Your task to perform on an android device: check data usage Image 0: 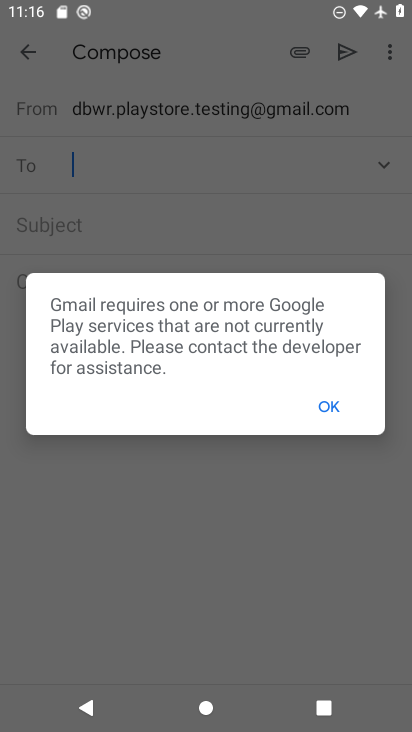
Step 0: press home button
Your task to perform on an android device: check data usage Image 1: 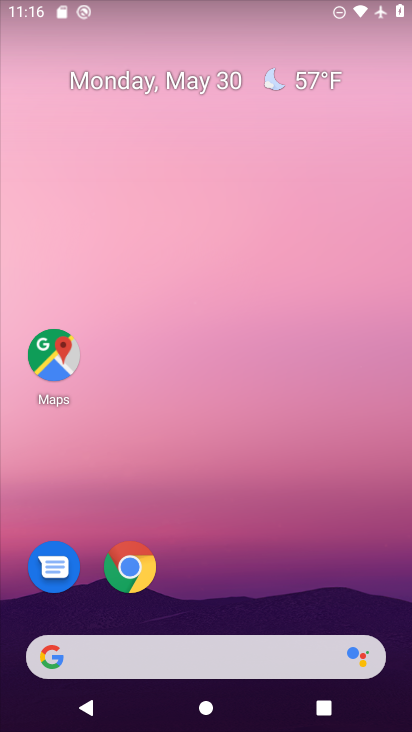
Step 1: drag from (212, 599) to (216, 170)
Your task to perform on an android device: check data usage Image 2: 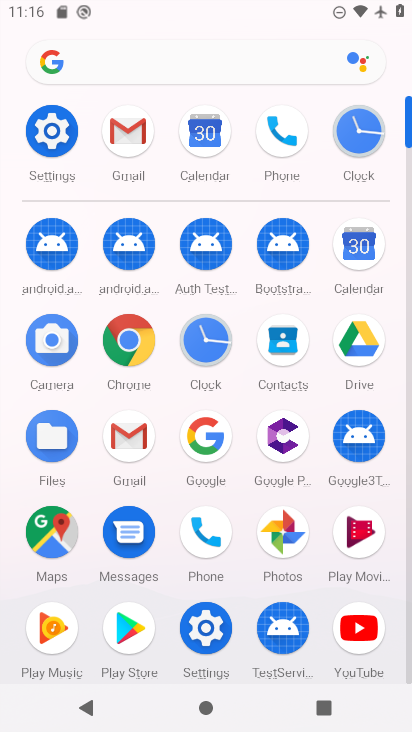
Step 2: click (54, 106)
Your task to perform on an android device: check data usage Image 3: 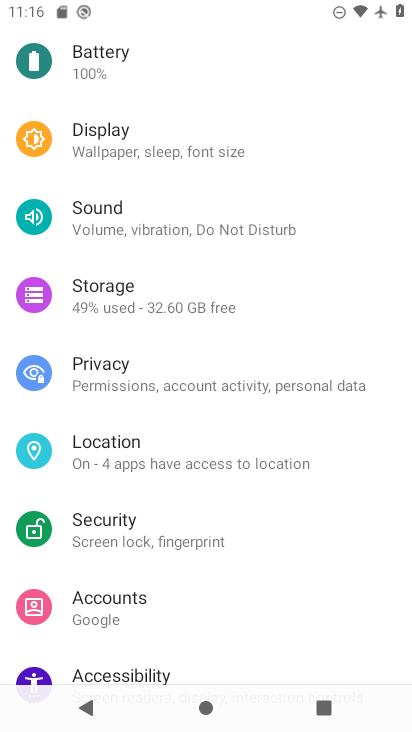
Step 3: drag from (143, 158) to (146, 505)
Your task to perform on an android device: check data usage Image 4: 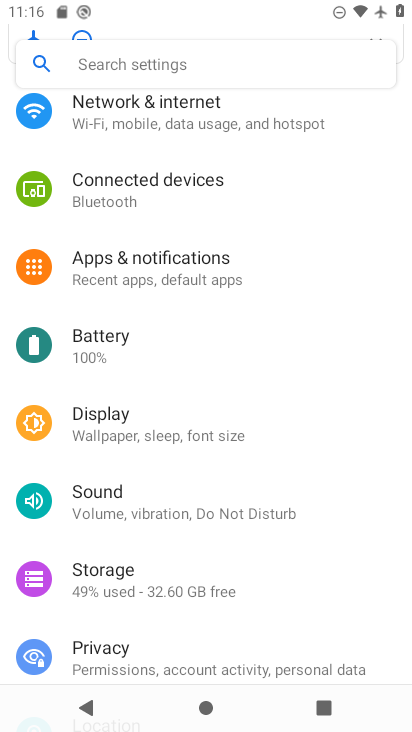
Step 4: click (189, 102)
Your task to perform on an android device: check data usage Image 5: 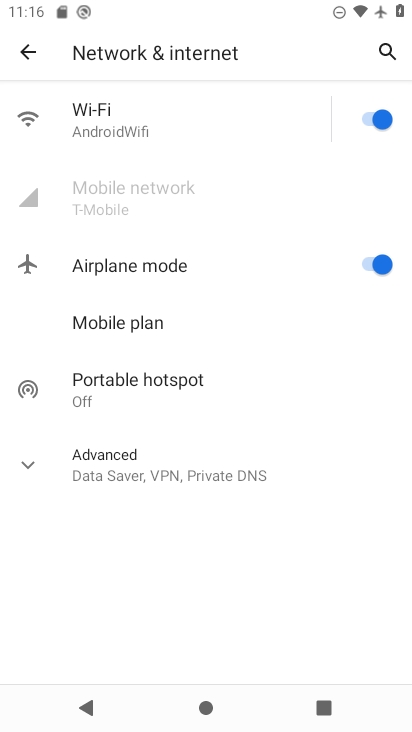
Step 5: click (124, 173)
Your task to perform on an android device: check data usage Image 6: 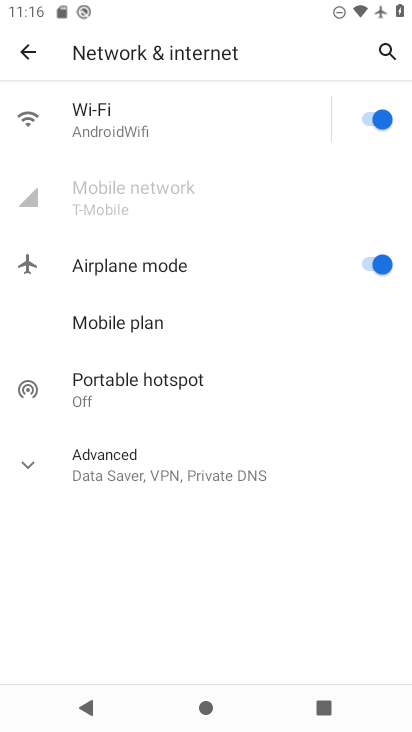
Step 6: task complete